Your task to perform on an android device: Search for vegetarian restaurants on Maps Image 0: 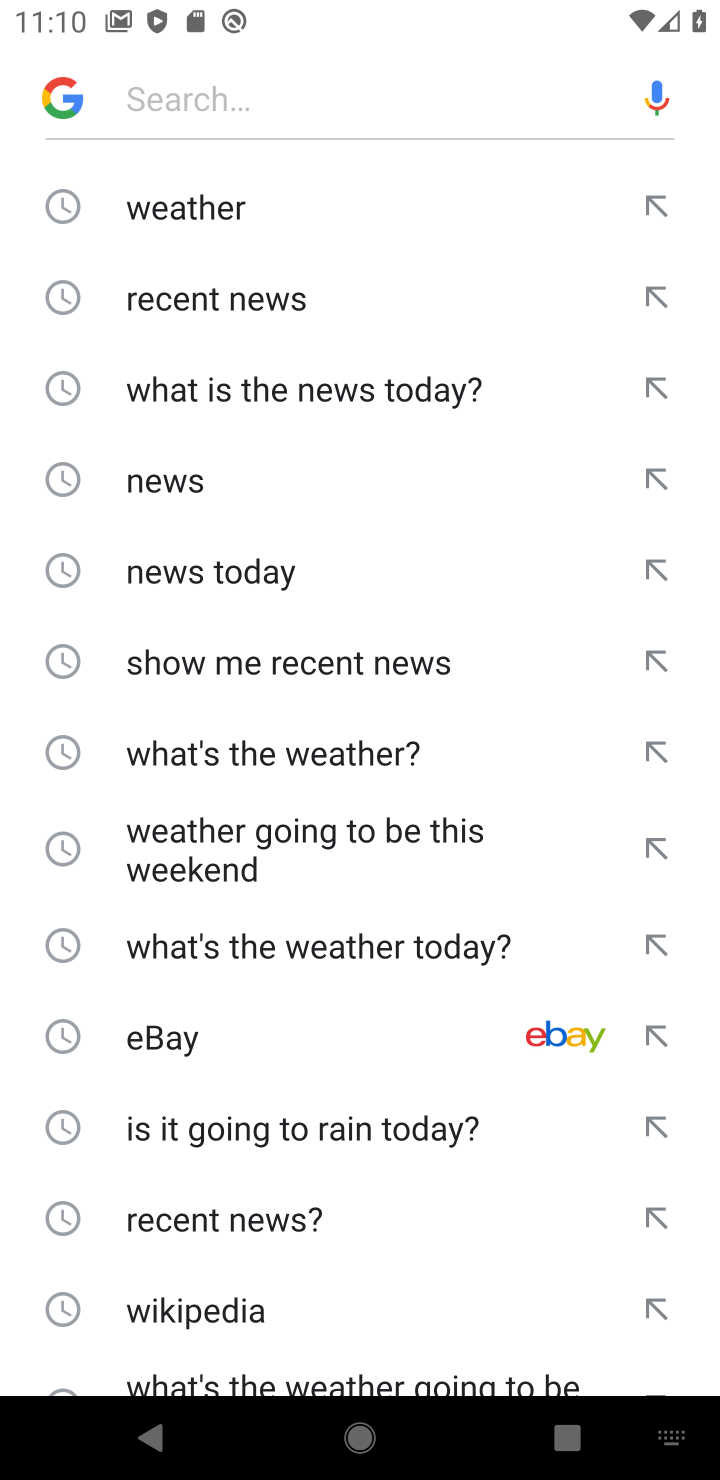
Step 0: press back button
Your task to perform on an android device: Search for vegetarian restaurants on Maps Image 1: 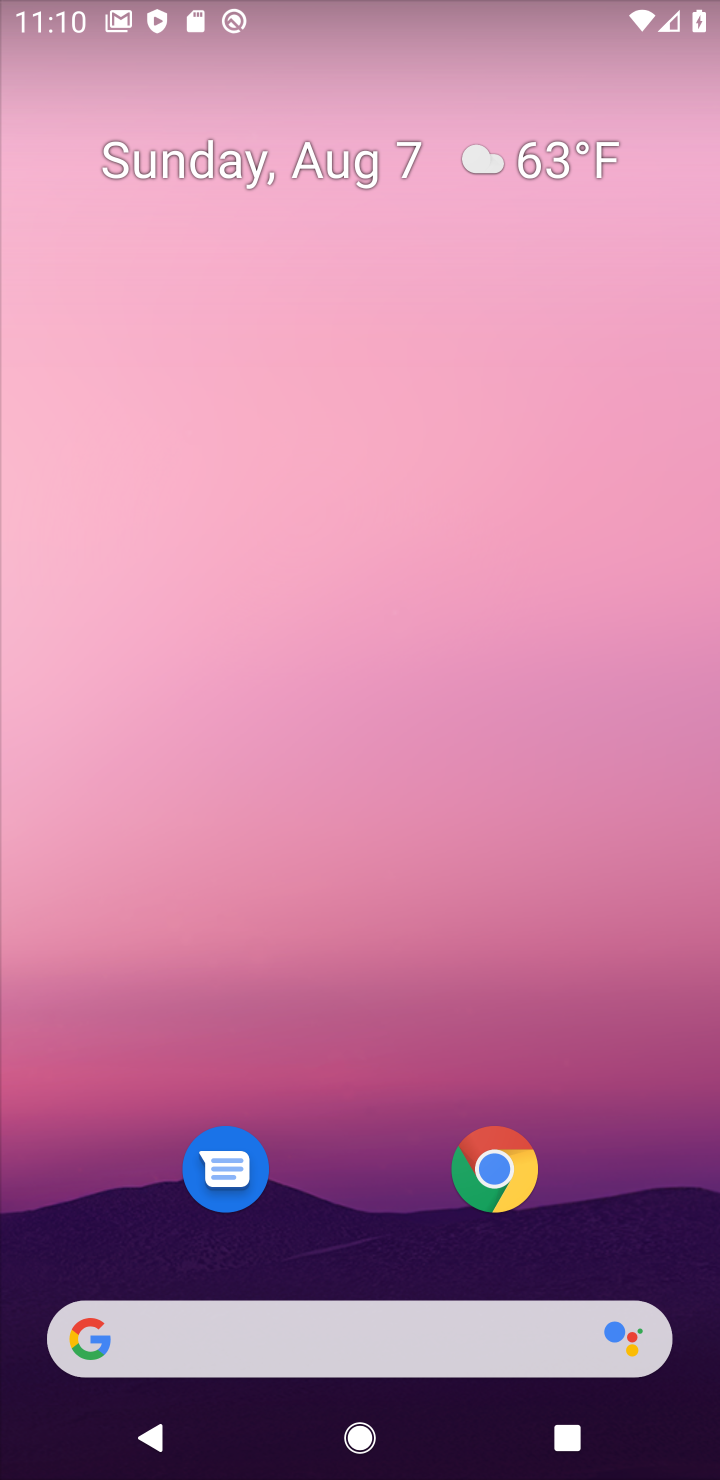
Step 1: drag from (290, 681) to (194, 20)
Your task to perform on an android device: Search for vegetarian restaurants on Maps Image 2: 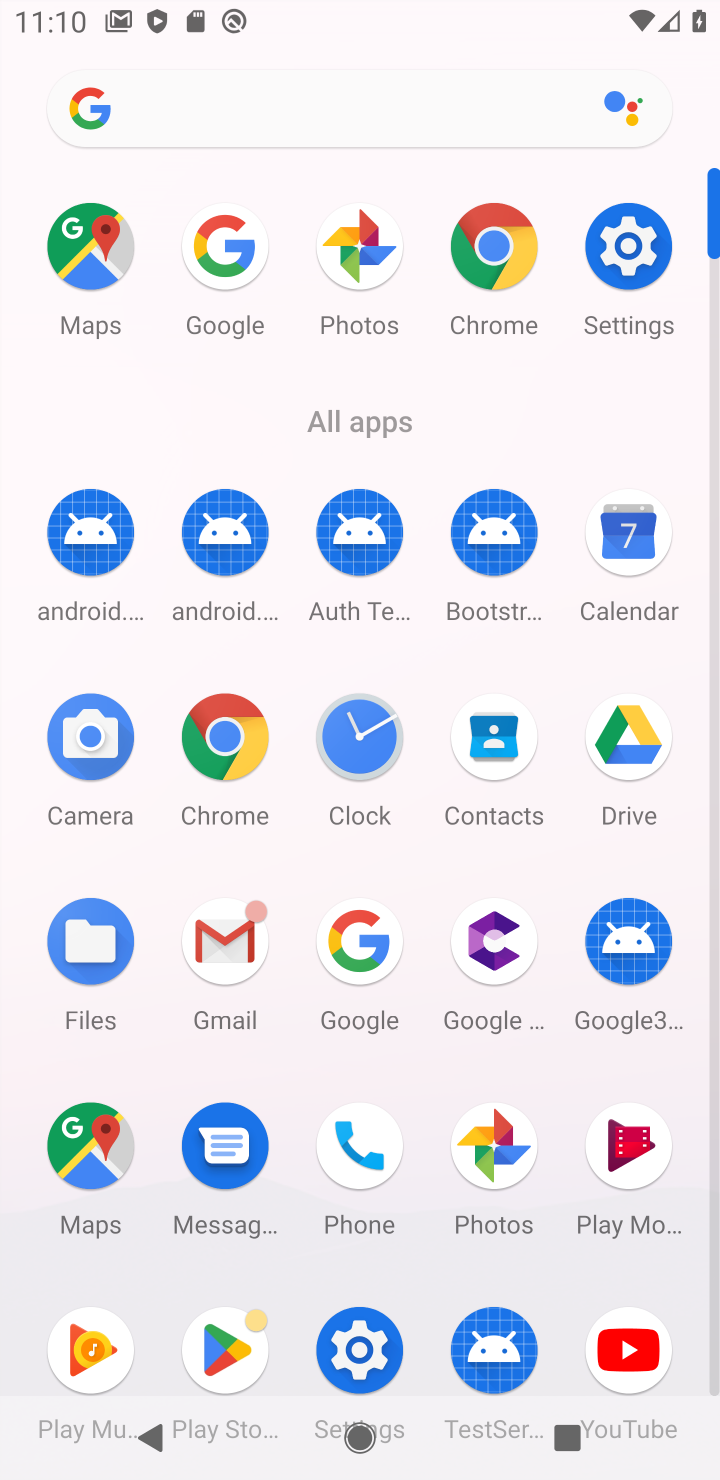
Step 2: click (114, 1130)
Your task to perform on an android device: Search for vegetarian restaurants on Maps Image 3: 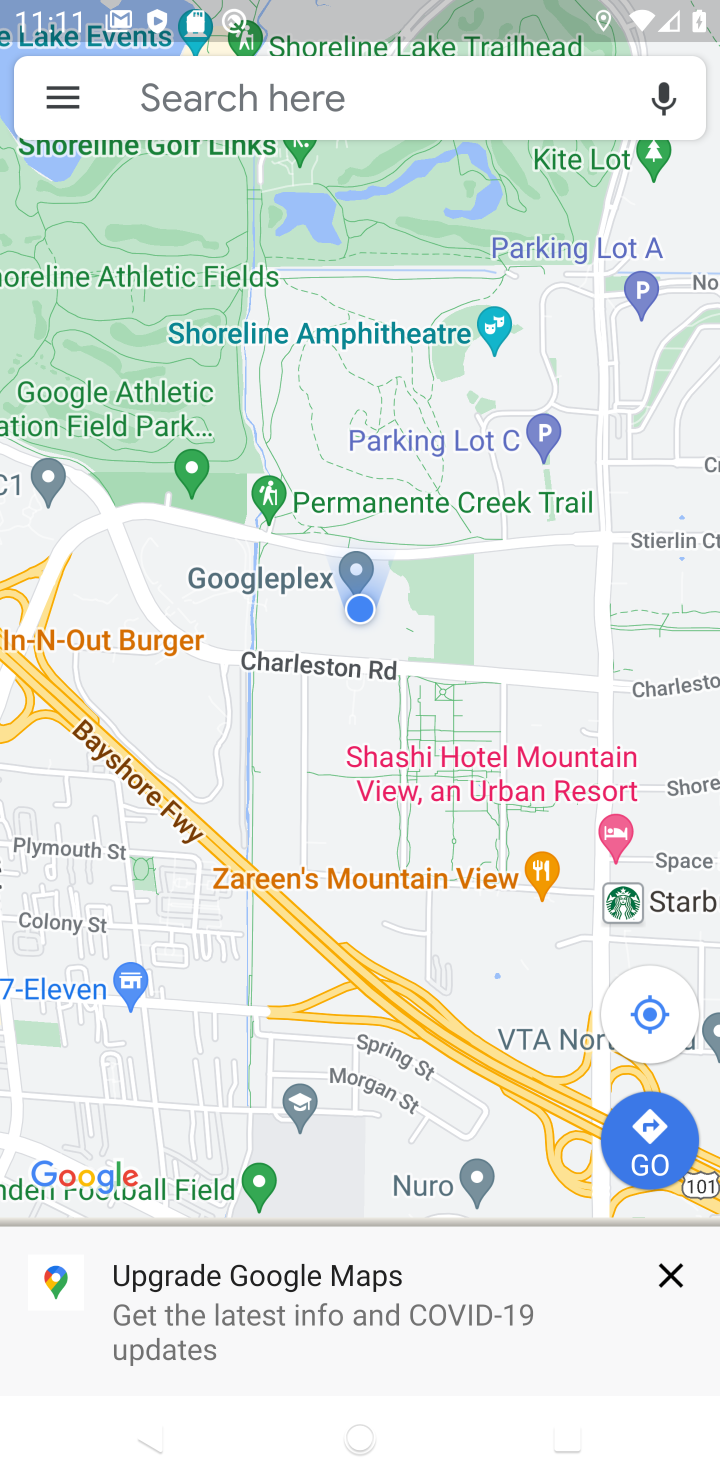
Step 3: click (297, 56)
Your task to perform on an android device: Search for vegetarian restaurants on Maps Image 4: 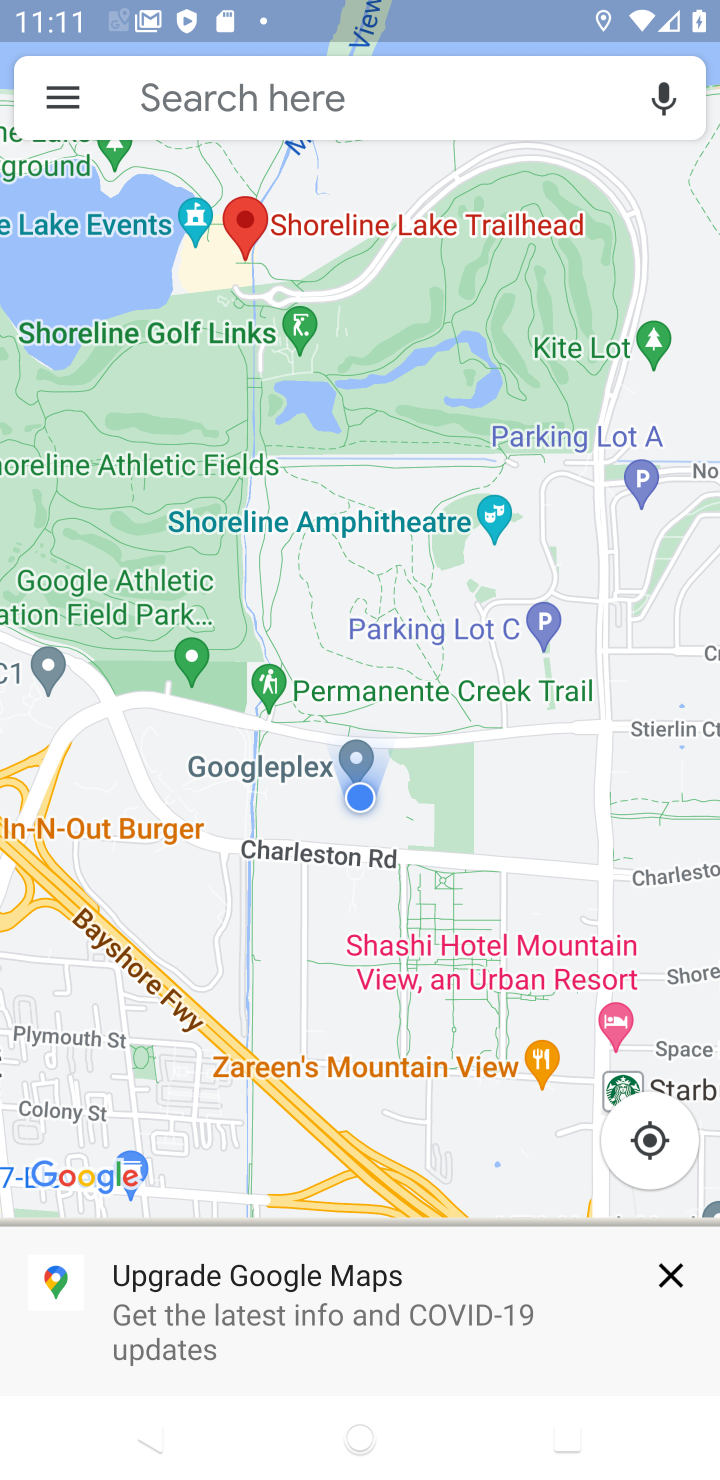
Step 4: click (288, 108)
Your task to perform on an android device: Search for vegetarian restaurants on Maps Image 5: 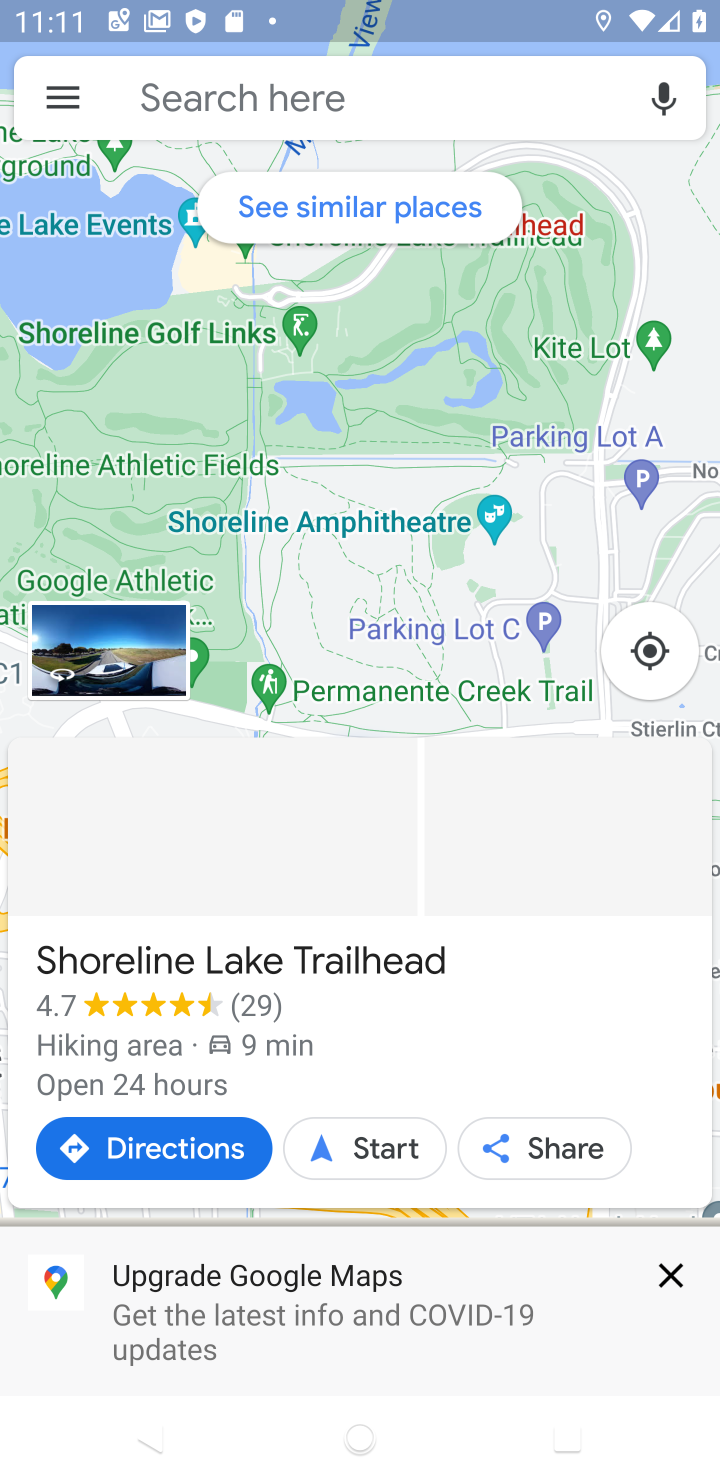
Step 5: click (436, 121)
Your task to perform on an android device: Search for vegetarian restaurants on Maps Image 6: 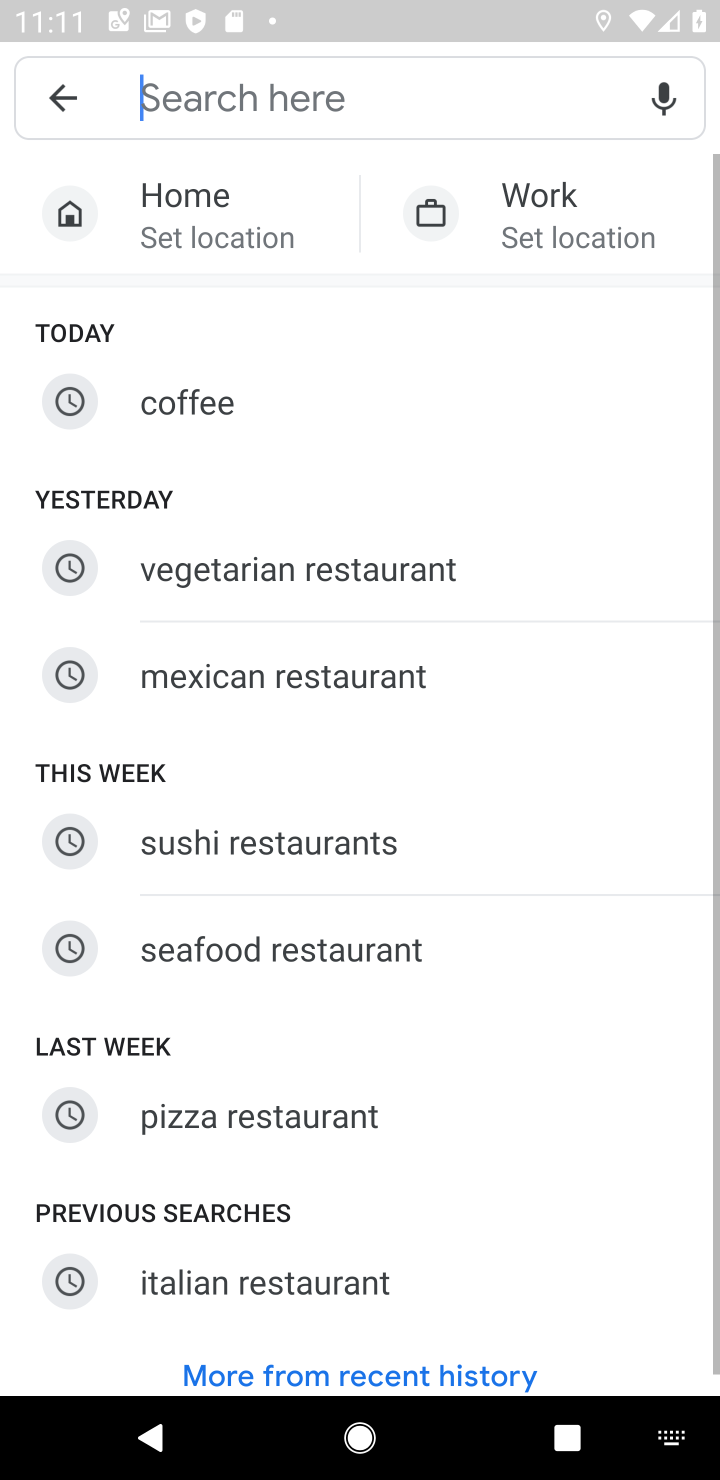
Step 6: click (271, 596)
Your task to perform on an android device: Search for vegetarian restaurants on Maps Image 7: 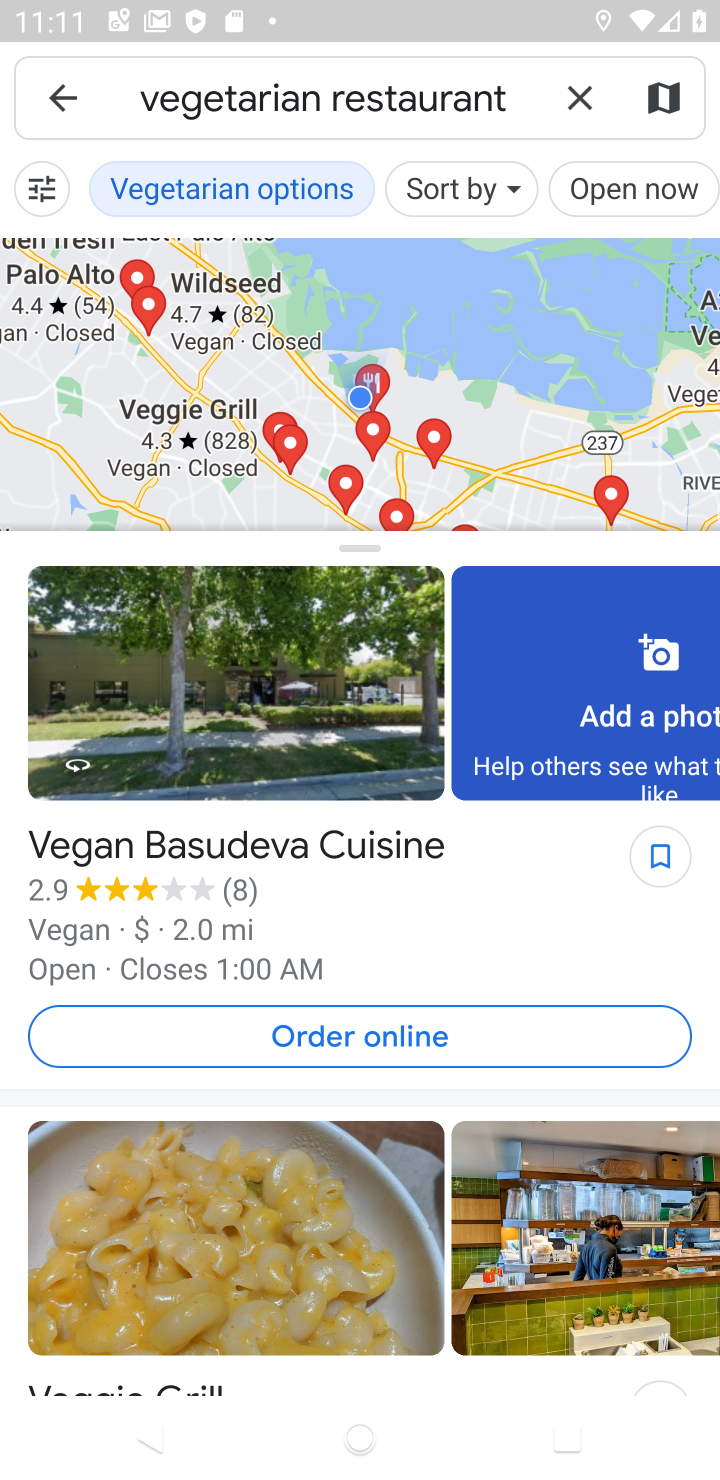
Step 7: task complete